Your task to perform on an android device: stop showing notifications on the lock screen Image 0: 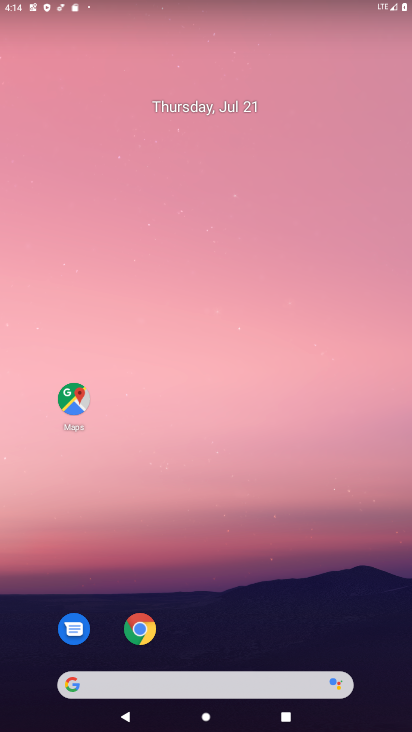
Step 0: drag from (285, 622) to (222, 161)
Your task to perform on an android device: stop showing notifications on the lock screen Image 1: 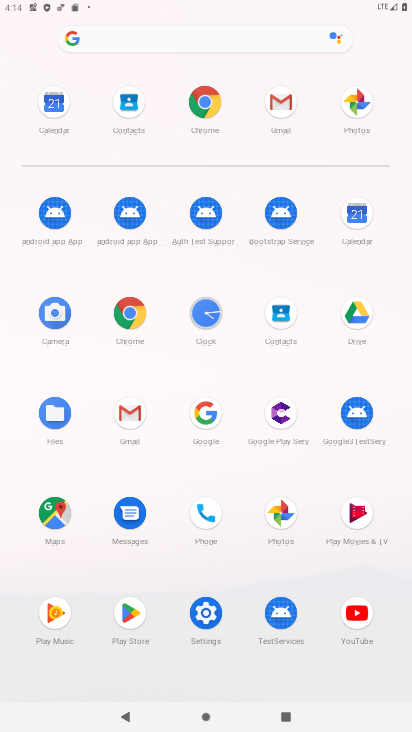
Step 1: click (198, 609)
Your task to perform on an android device: stop showing notifications on the lock screen Image 2: 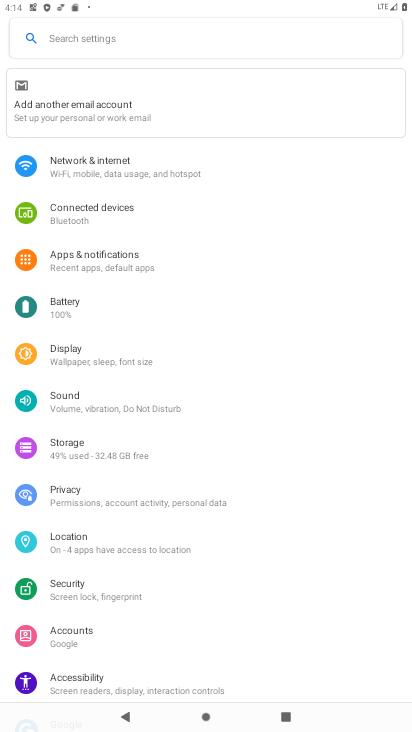
Step 2: click (83, 254)
Your task to perform on an android device: stop showing notifications on the lock screen Image 3: 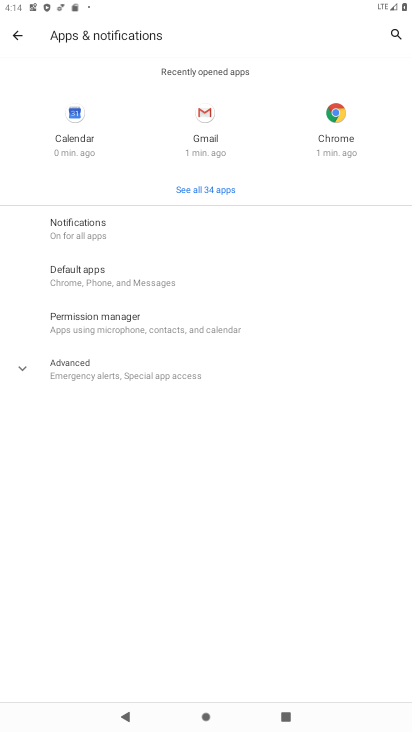
Step 3: click (103, 239)
Your task to perform on an android device: stop showing notifications on the lock screen Image 4: 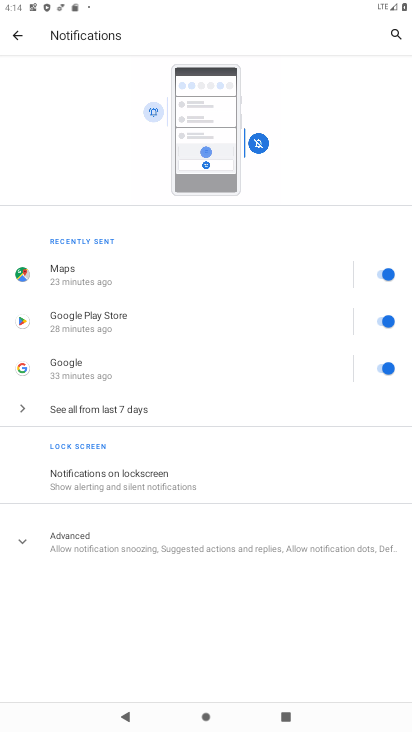
Step 4: click (118, 480)
Your task to perform on an android device: stop showing notifications on the lock screen Image 5: 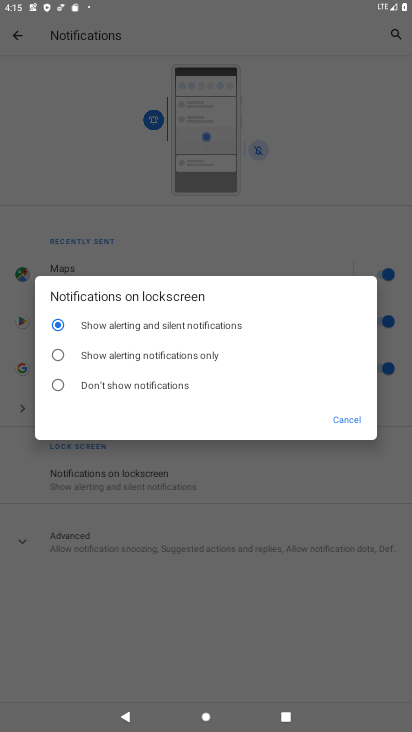
Step 5: click (137, 390)
Your task to perform on an android device: stop showing notifications on the lock screen Image 6: 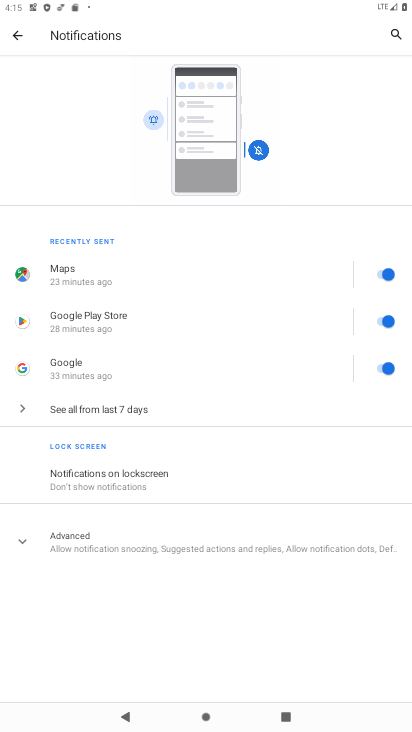
Step 6: task complete